Your task to perform on an android device: When is my next appointment? Image 0: 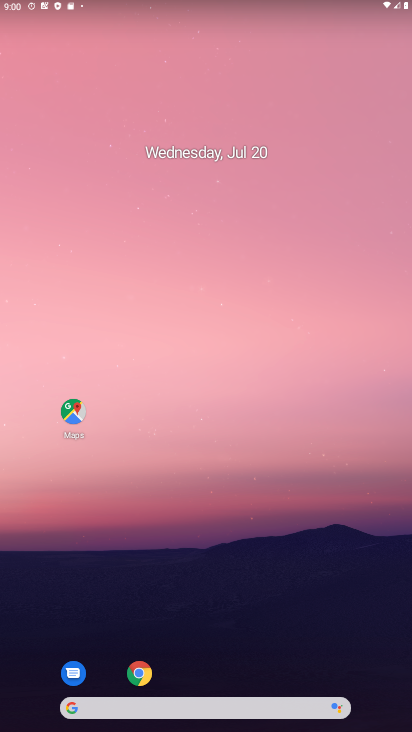
Step 0: drag from (388, 671) to (175, 17)
Your task to perform on an android device: When is my next appointment? Image 1: 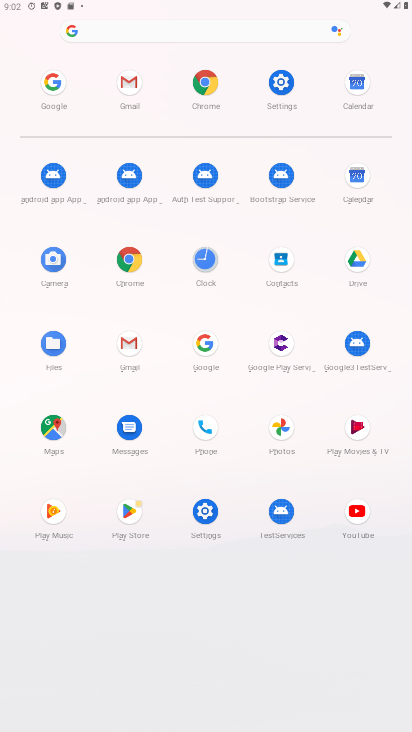
Step 1: click (355, 173)
Your task to perform on an android device: When is my next appointment? Image 2: 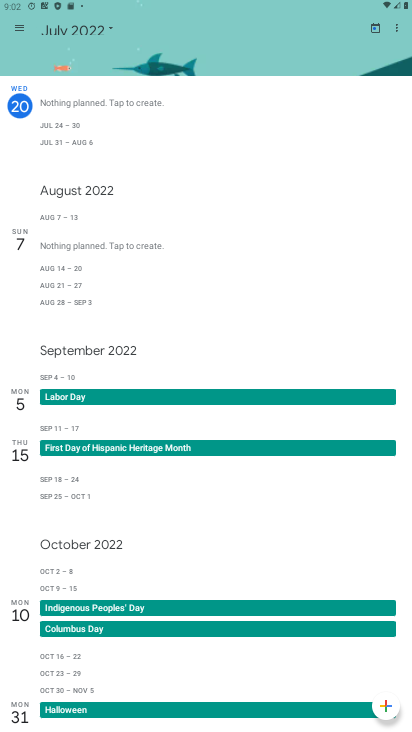
Step 2: task complete